Your task to perform on an android device: Is it going to rain tomorrow? Image 0: 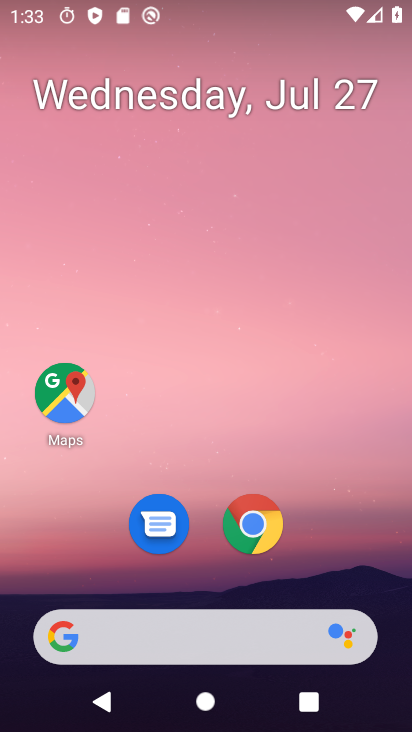
Step 0: drag from (326, 519) to (311, 22)
Your task to perform on an android device: Is it going to rain tomorrow? Image 1: 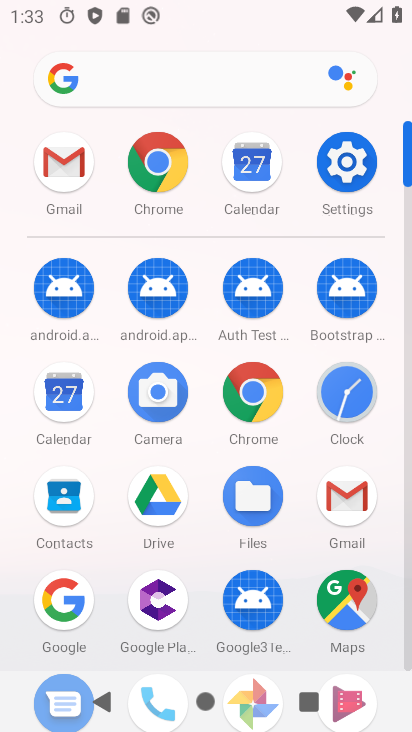
Step 1: press home button
Your task to perform on an android device: Is it going to rain tomorrow? Image 2: 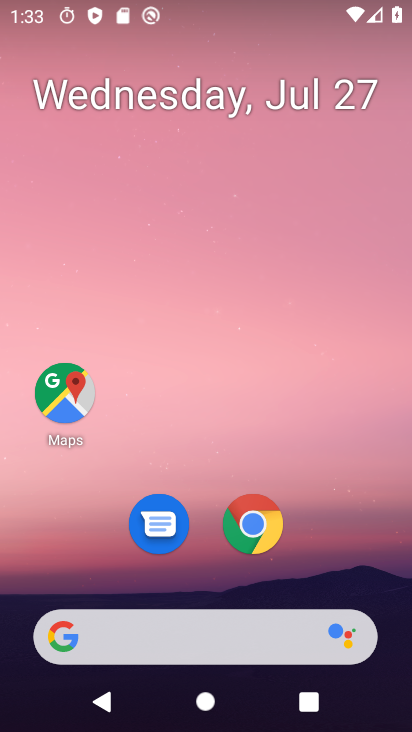
Step 2: click (253, 649)
Your task to perform on an android device: Is it going to rain tomorrow? Image 3: 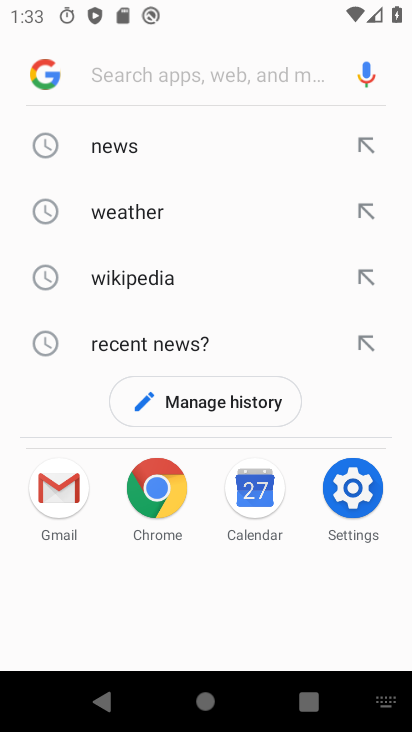
Step 3: click (125, 207)
Your task to perform on an android device: Is it going to rain tomorrow? Image 4: 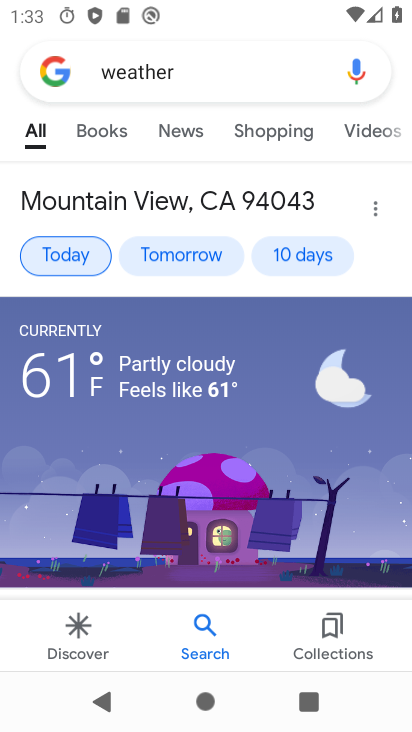
Step 4: click (165, 256)
Your task to perform on an android device: Is it going to rain tomorrow? Image 5: 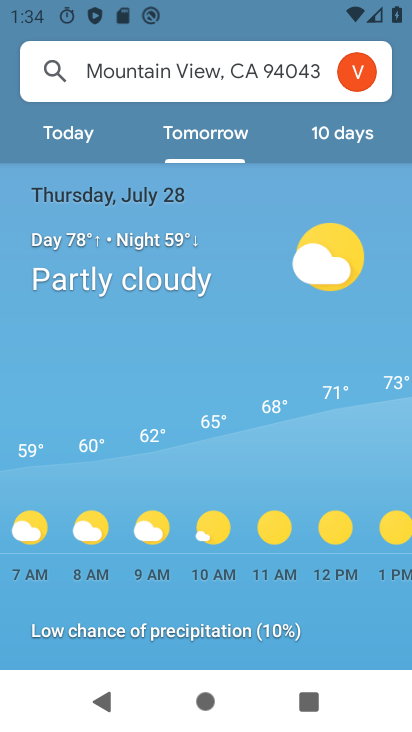
Step 5: task complete